Your task to perform on an android device: open chrome privacy settings Image 0: 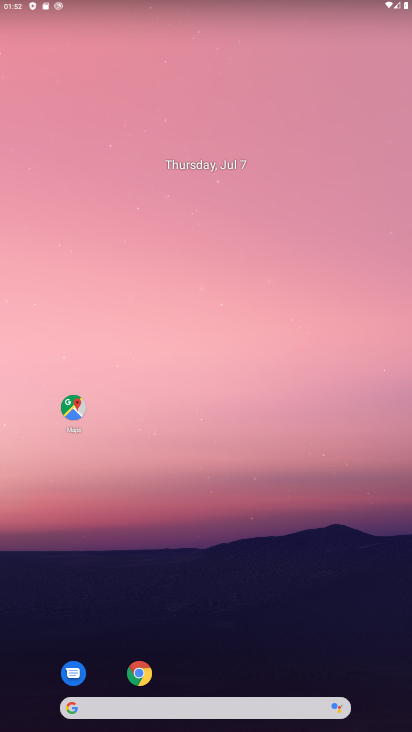
Step 0: click (150, 675)
Your task to perform on an android device: open chrome privacy settings Image 1: 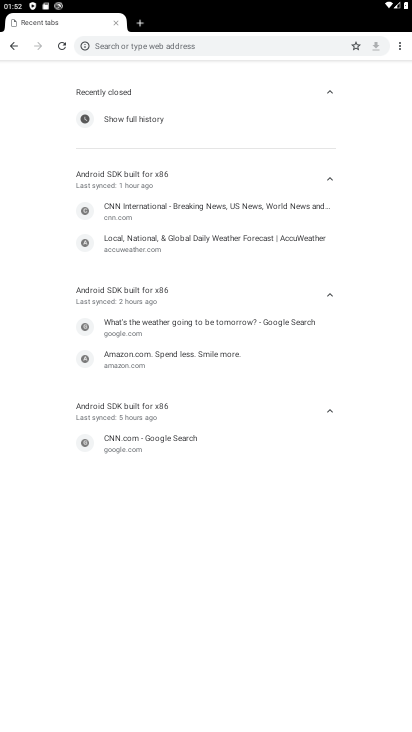
Step 1: click (398, 49)
Your task to perform on an android device: open chrome privacy settings Image 2: 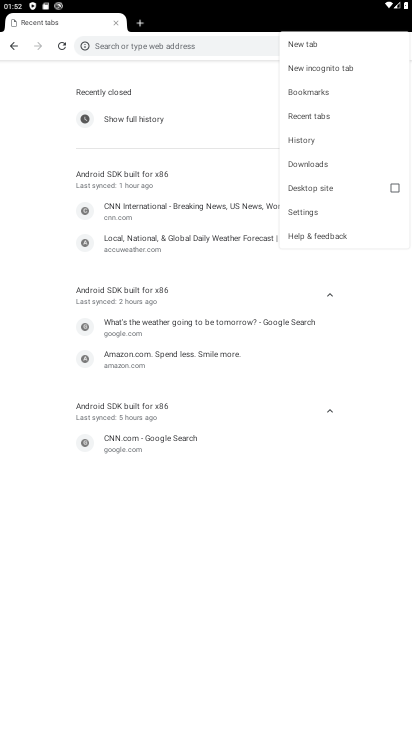
Step 2: click (320, 213)
Your task to perform on an android device: open chrome privacy settings Image 3: 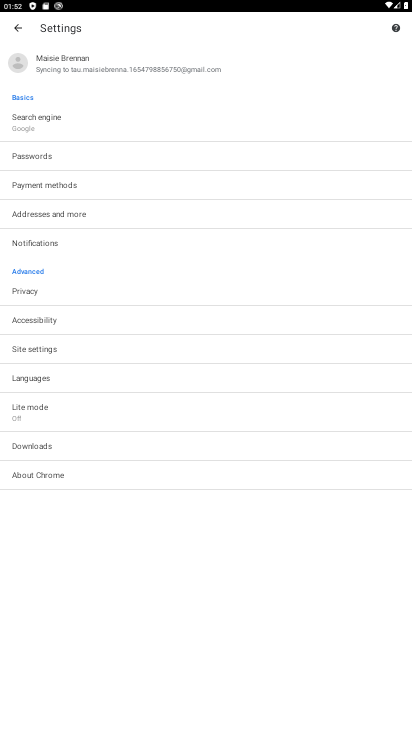
Step 3: click (42, 293)
Your task to perform on an android device: open chrome privacy settings Image 4: 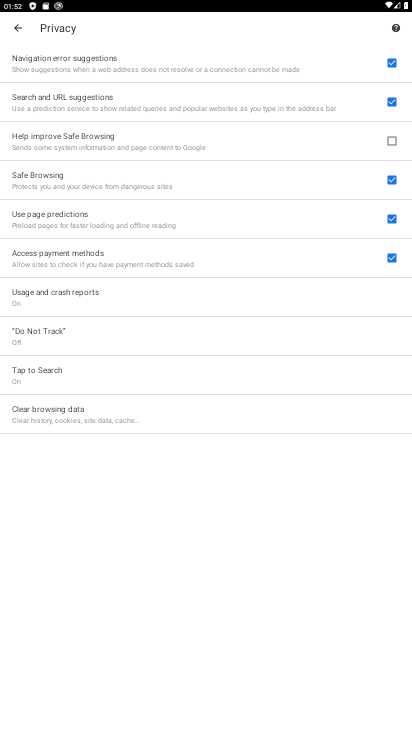
Step 4: task complete